Your task to perform on an android device: see sites visited before in the chrome app Image 0: 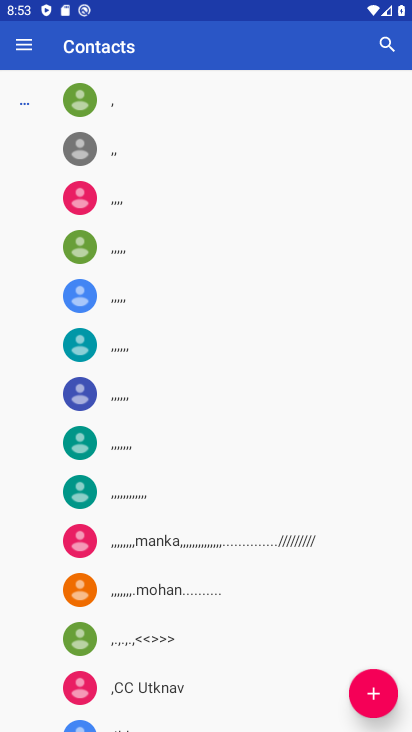
Step 0: press home button
Your task to perform on an android device: see sites visited before in the chrome app Image 1: 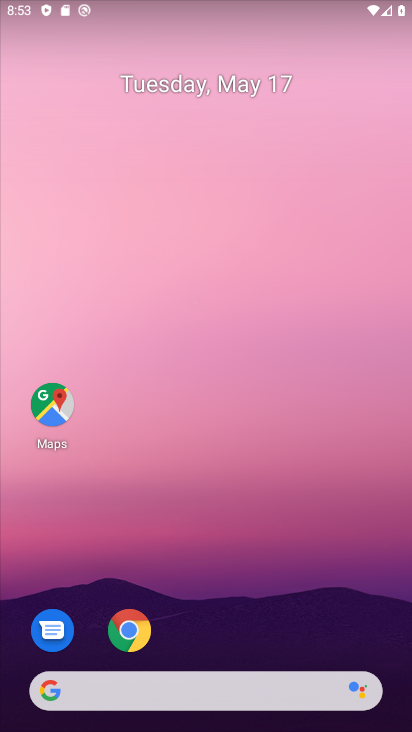
Step 1: drag from (343, 569) to (354, 161)
Your task to perform on an android device: see sites visited before in the chrome app Image 2: 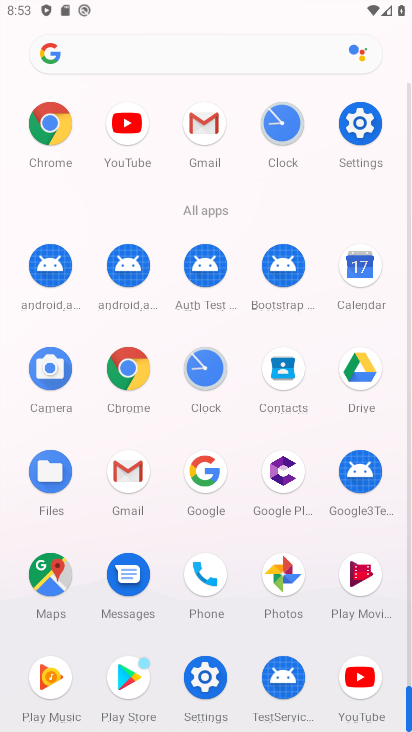
Step 2: click (123, 376)
Your task to perform on an android device: see sites visited before in the chrome app Image 3: 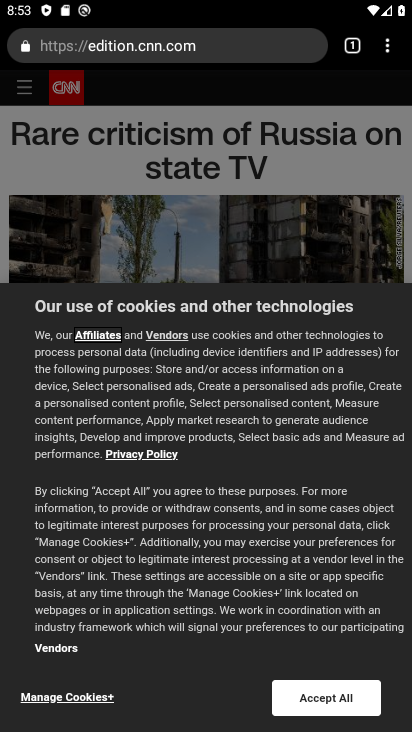
Step 3: click (387, 55)
Your task to perform on an android device: see sites visited before in the chrome app Image 4: 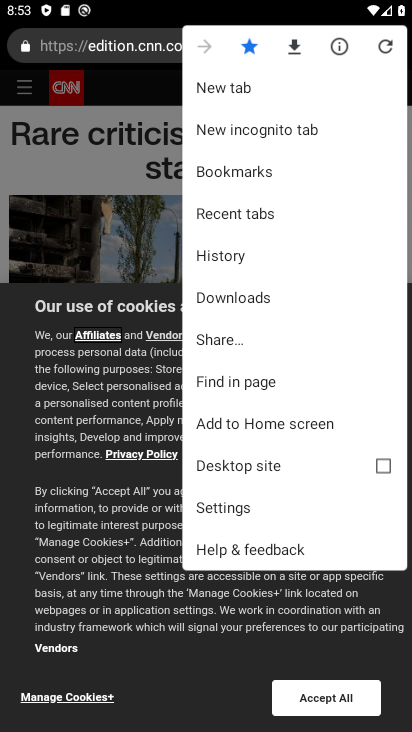
Step 4: drag from (322, 497) to (349, 351)
Your task to perform on an android device: see sites visited before in the chrome app Image 5: 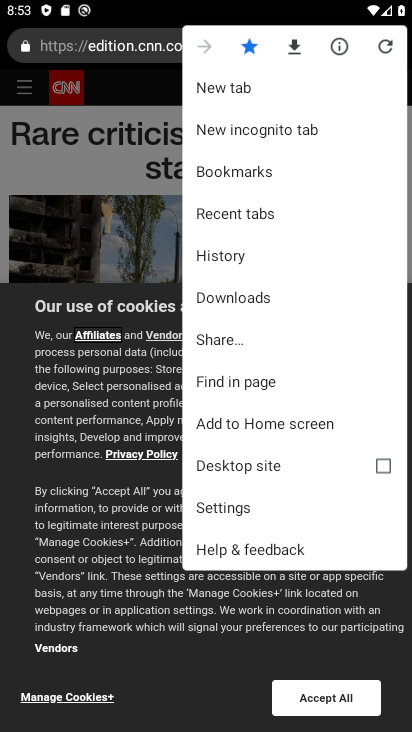
Step 5: click (220, 251)
Your task to perform on an android device: see sites visited before in the chrome app Image 6: 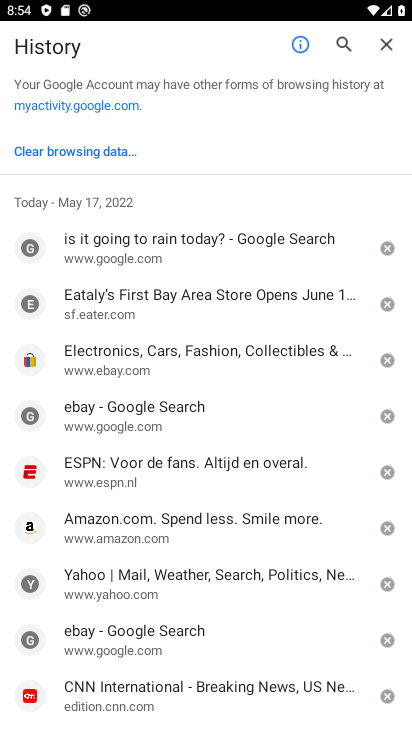
Step 6: task complete